Your task to perform on an android device: Open accessibility settings Image 0: 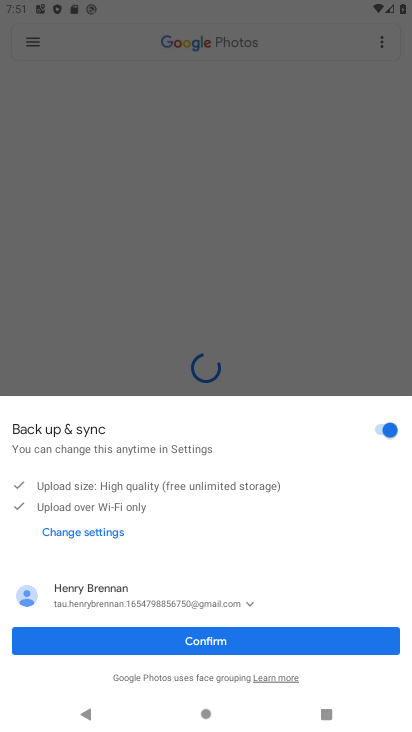
Step 0: press home button
Your task to perform on an android device: Open accessibility settings Image 1: 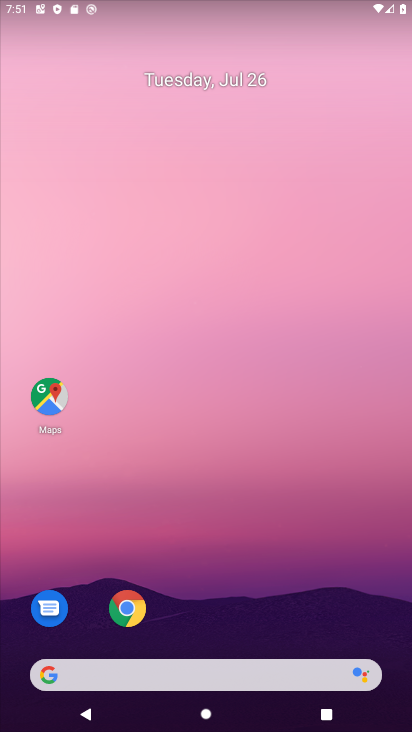
Step 1: drag from (47, 702) to (241, 192)
Your task to perform on an android device: Open accessibility settings Image 2: 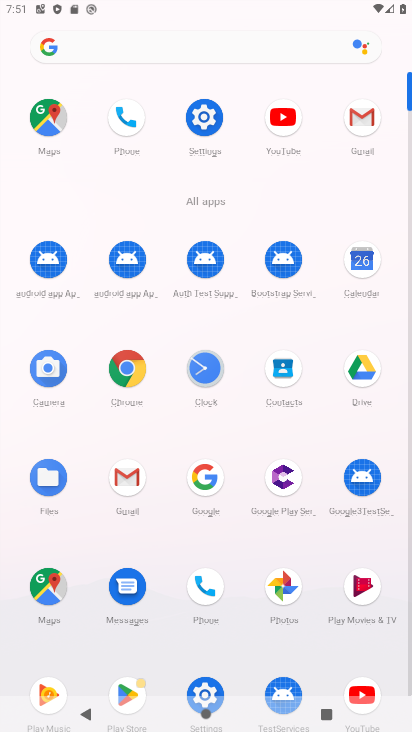
Step 2: click (215, 696)
Your task to perform on an android device: Open accessibility settings Image 3: 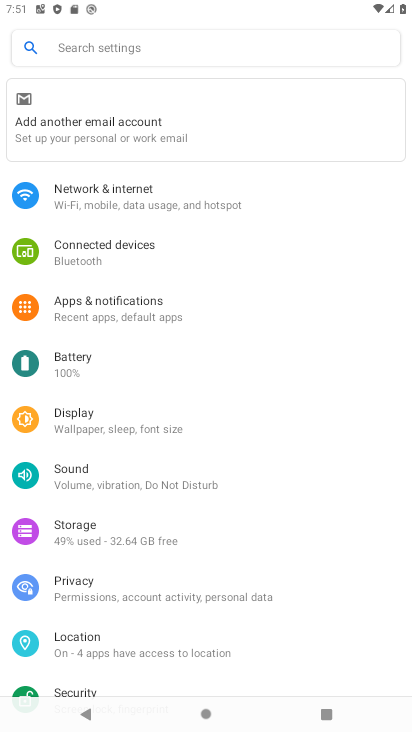
Step 3: drag from (245, 638) to (255, 325)
Your task to perform on an android device: Open accessibility settings Image 4: 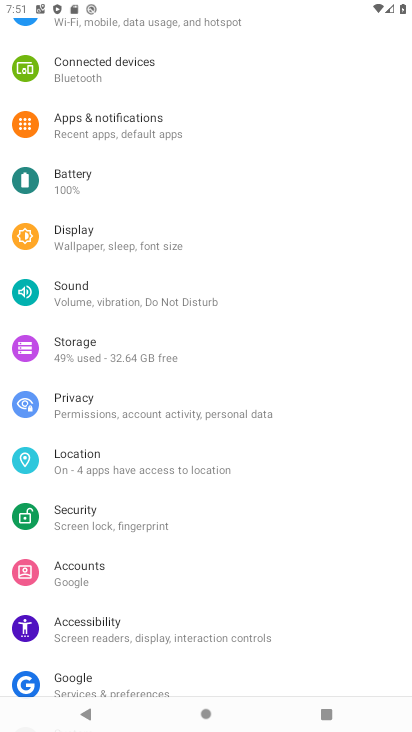
Step 4: click (106, 633)
Your task to perform on an android device: Open accessibility settings Image 5: 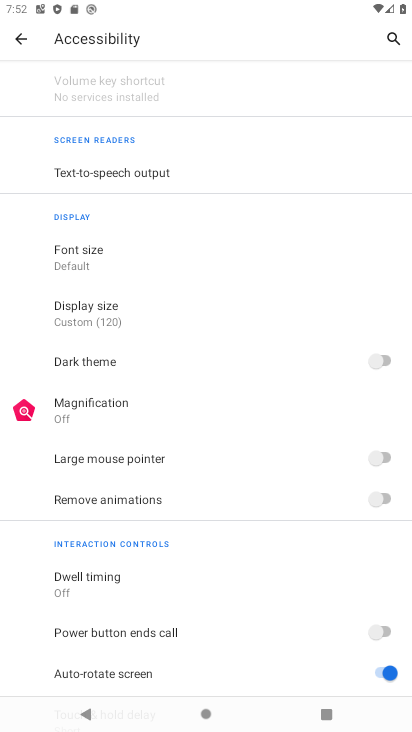
Step 5: task complete